Your task to perform on an android device: Clear the cart on amazon. Image 0: 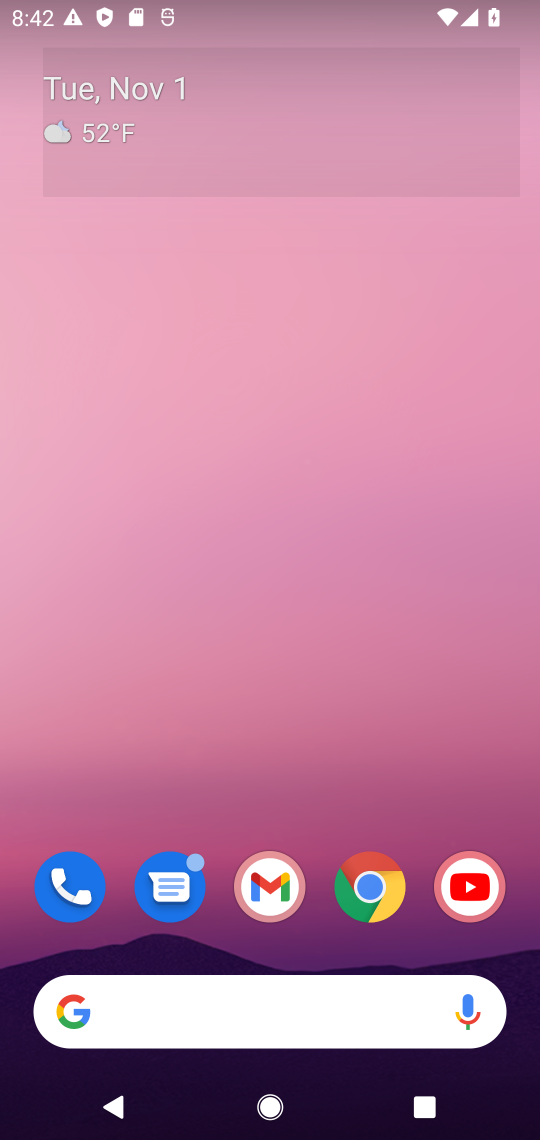
Step 0: drag from (291, 882) to (332, 330)
Your task to perform on an android device: Clear the cart on amazon. Image 1: 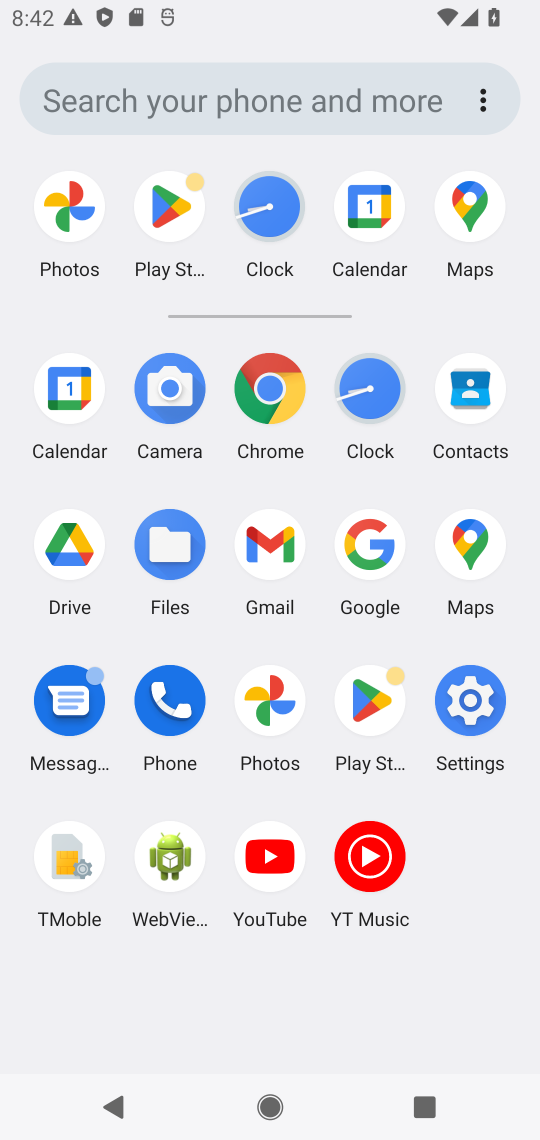
Step 1: click (354, 524)
Your task to perform on an android device: Clear the cart on amazon. Image 2: 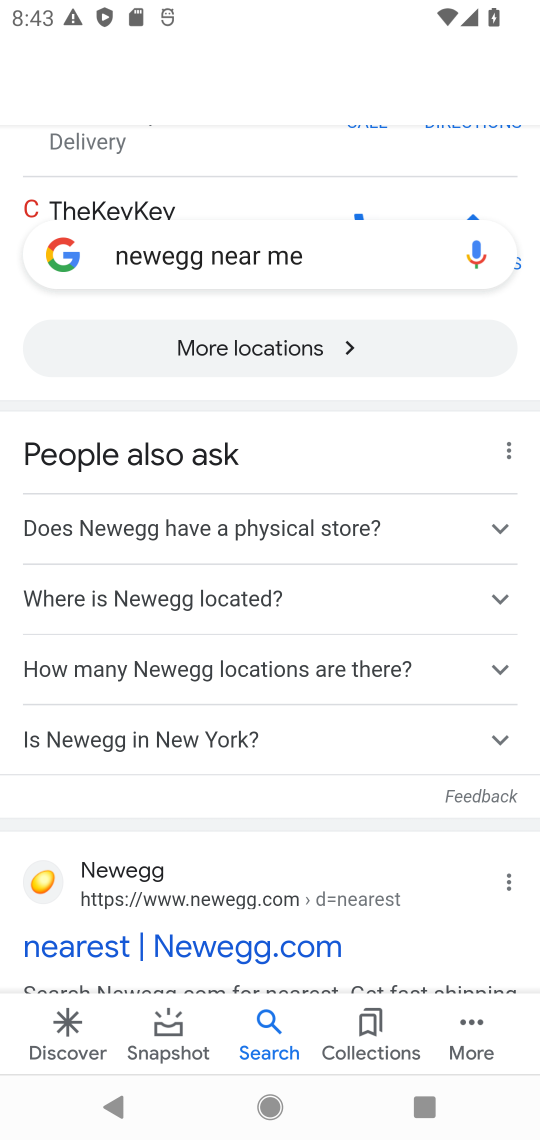
Step 2: click (271, 243)
Your task to perform on an android device: Clear the cart on amazon. Image 3: 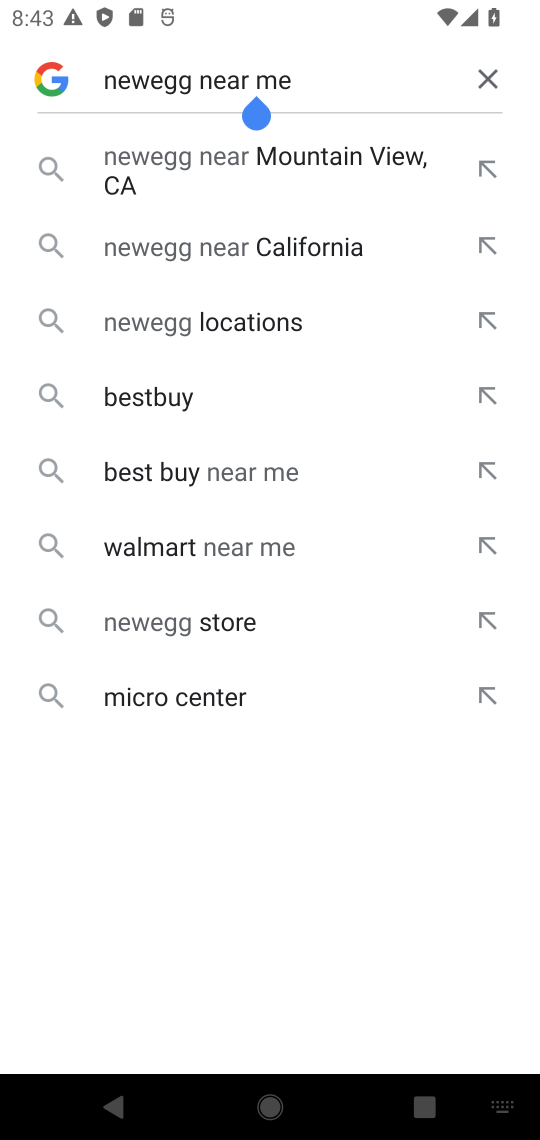
Step 3: click (487, 99)
Your task to perform on an android device: Clear the cart on amazon. Image 4: 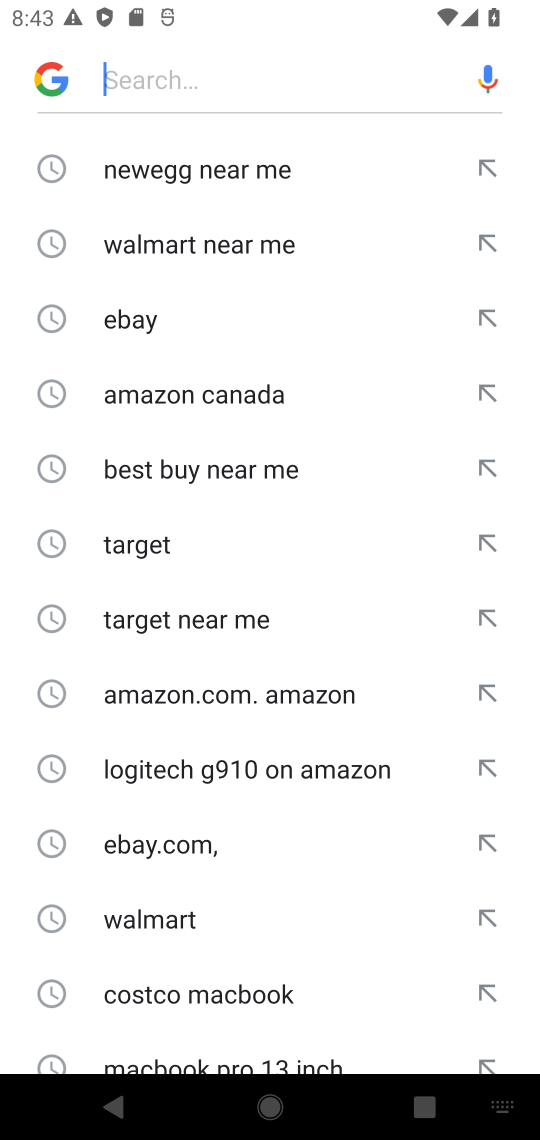
Step 4: click (202, 87)
Your task to perform on an android device: Clear the cart on amazon. Image 5: 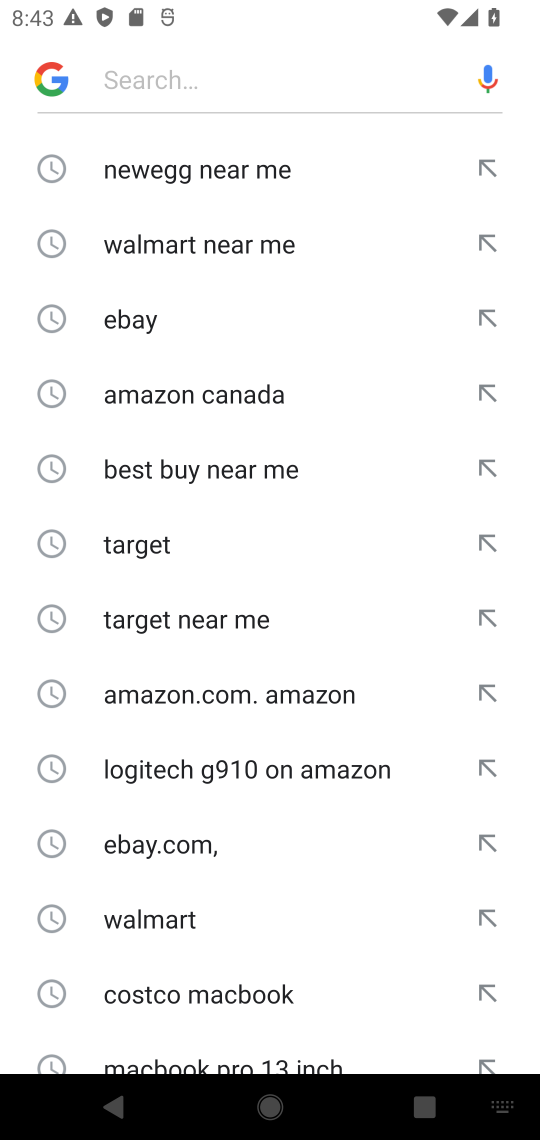
Step 5: type " amazon "
Your task to perform on an android device: Clear the cart on amazon. Image 6: 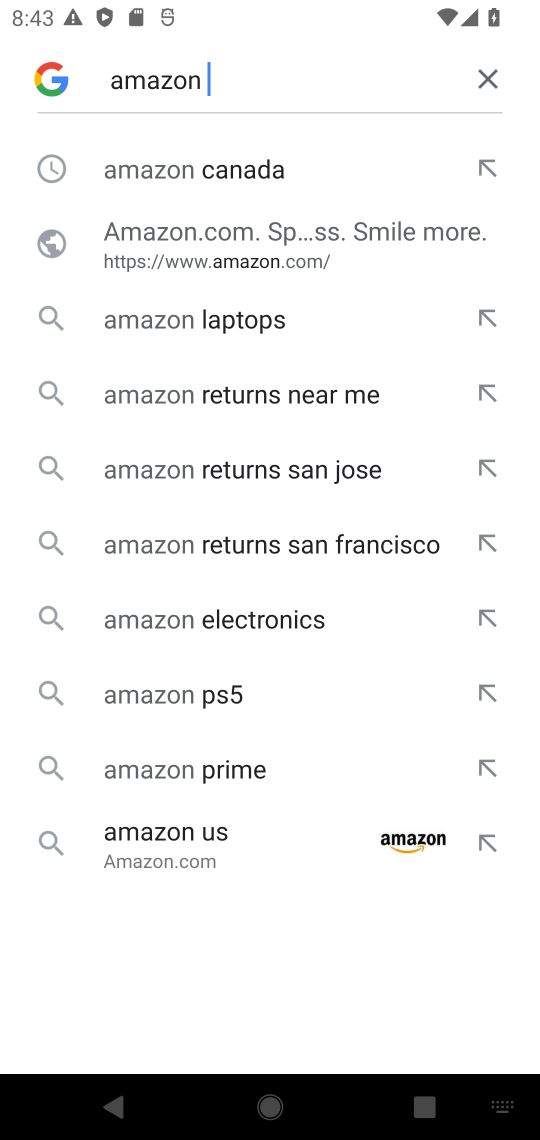
Step 6: click (157, 169)
Your task to perform on an android device: Clear the cart on amazon. Image 7: 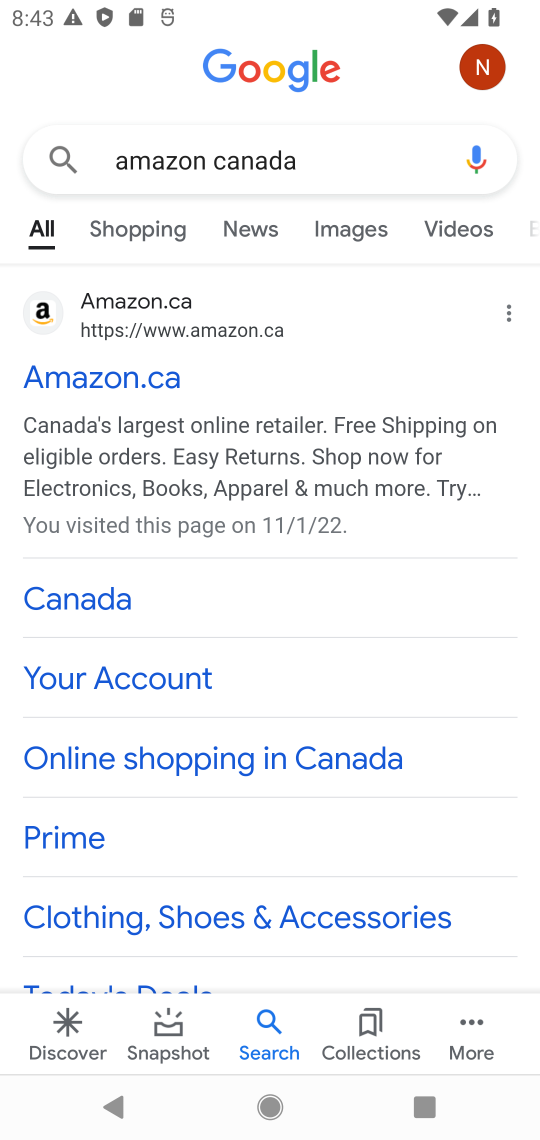
Step 7: click (112, 373)
Your task to perform on an android device: Clear the cart on amazon. Image 8: 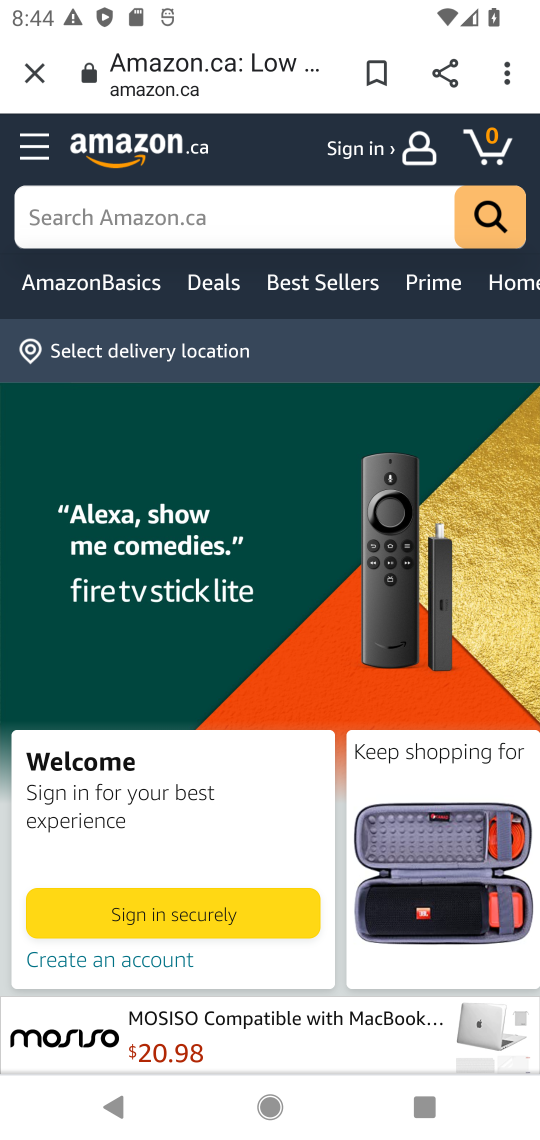
Step 8: task complete